Your task to perform on an android device: Open eBay Image 0: 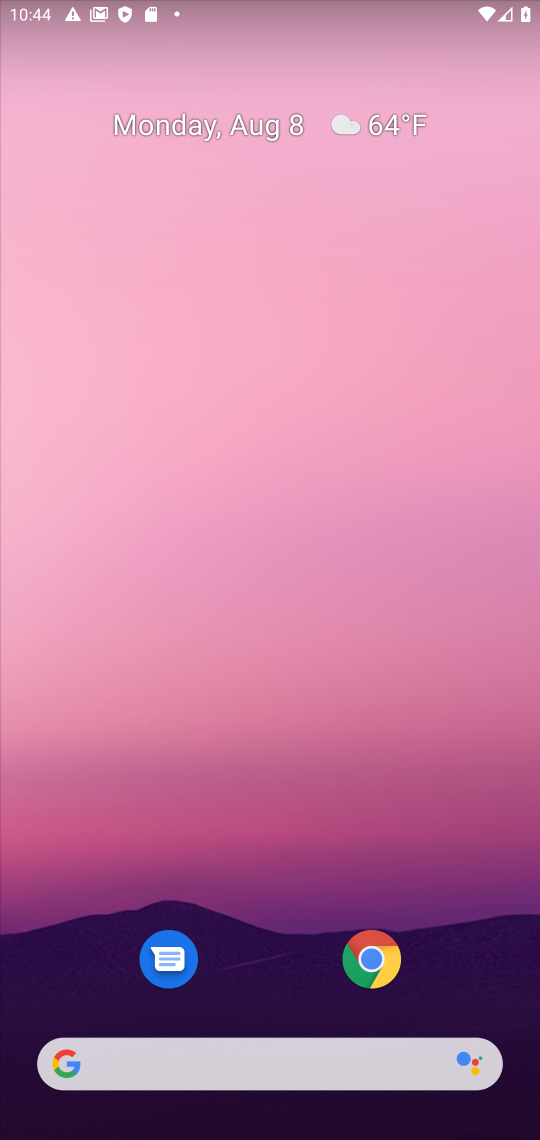
Step 0: drag from (289, 981) to (155, 442)
Your task to perform on an android device: Open eBay Image 1: 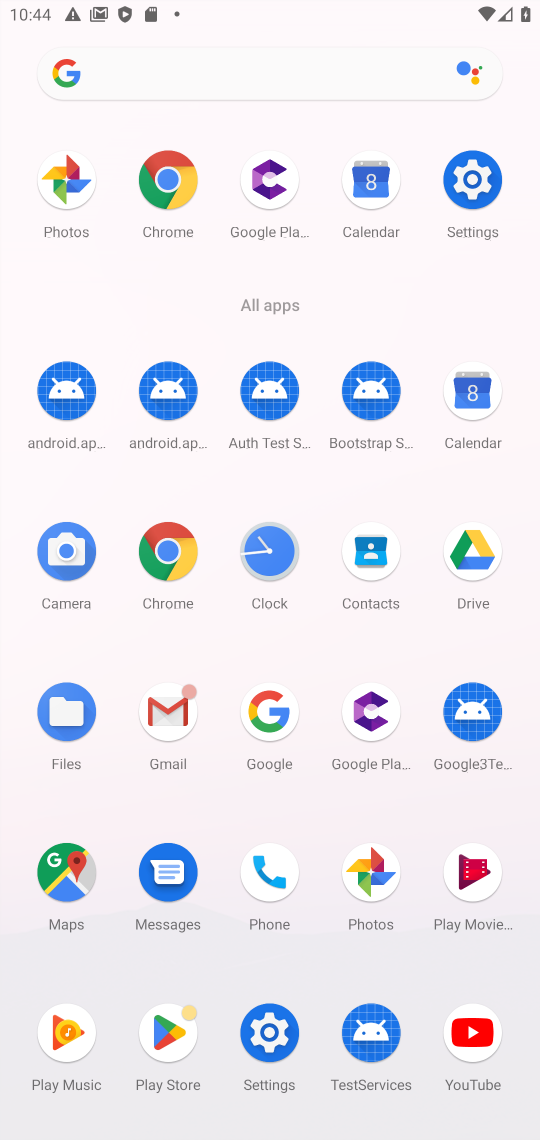
Step 1: click (128, 204)
Your task to perform on an android device: Open eBay Image 2: 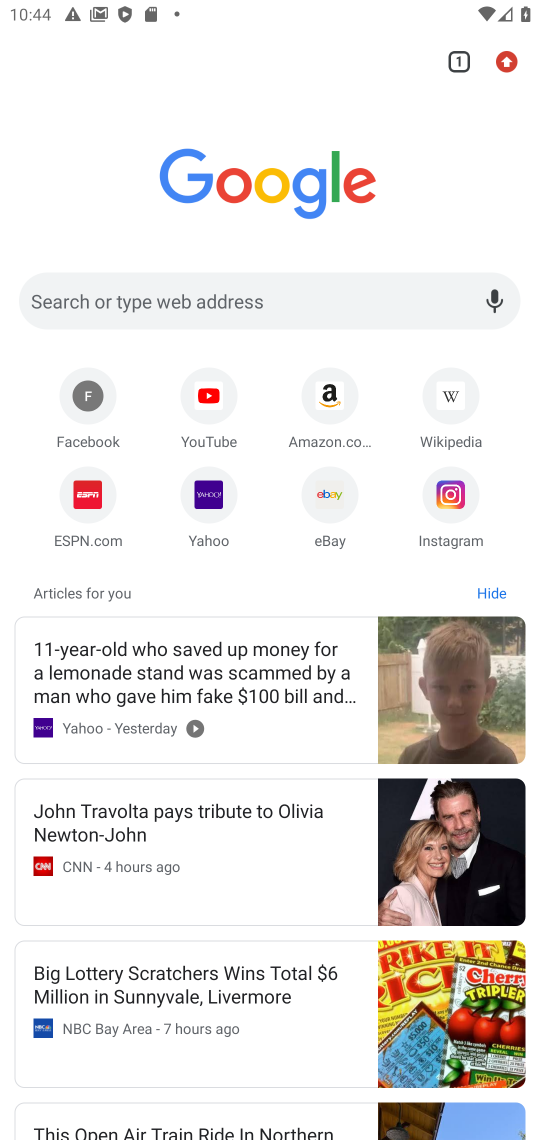
Step 2: click (362, 525)
Your task to perform on an android device: Open eBay Image 3: 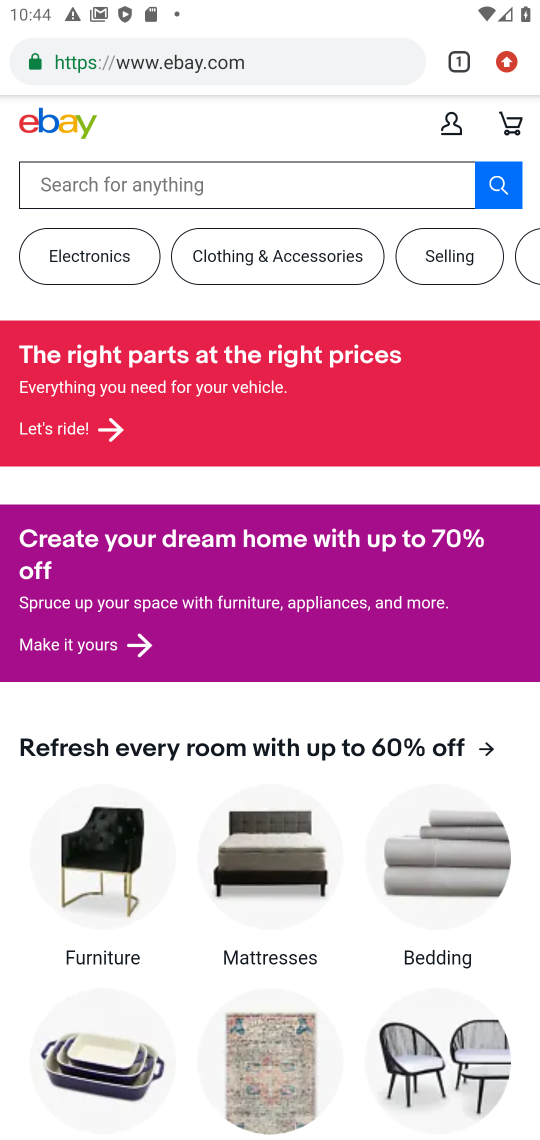
Step 3: task complete